Your task to perform on an android device: Open Yahoo.com Image 0: 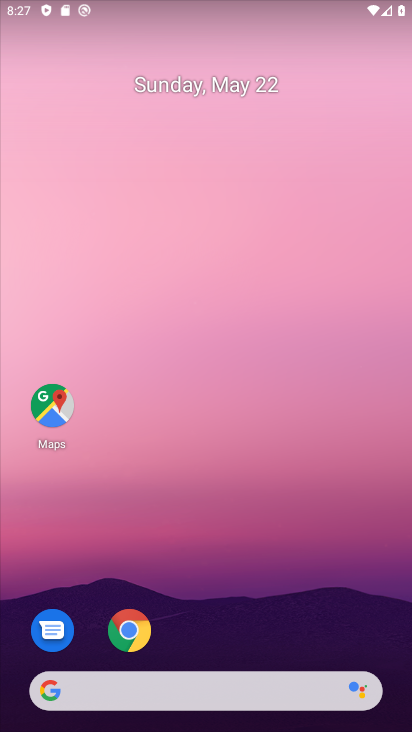
Step 0: click (198, 684)
Your task to perform on an android device: Open Yahoo.com Image 1: 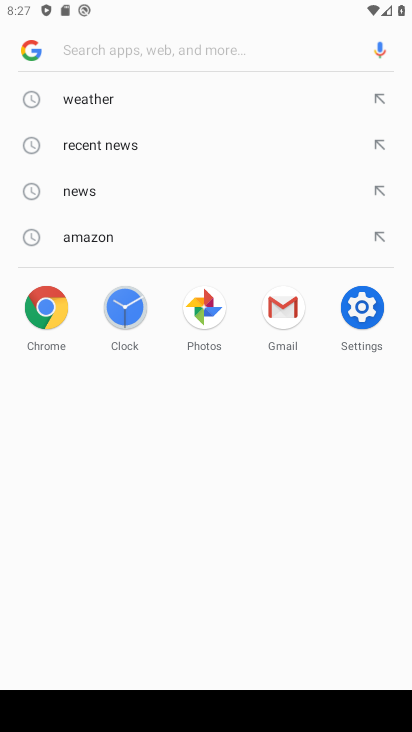
Step 1: type "yahoo.com"
Your task to perform on an android device: Open Yahoo.com Image 2: 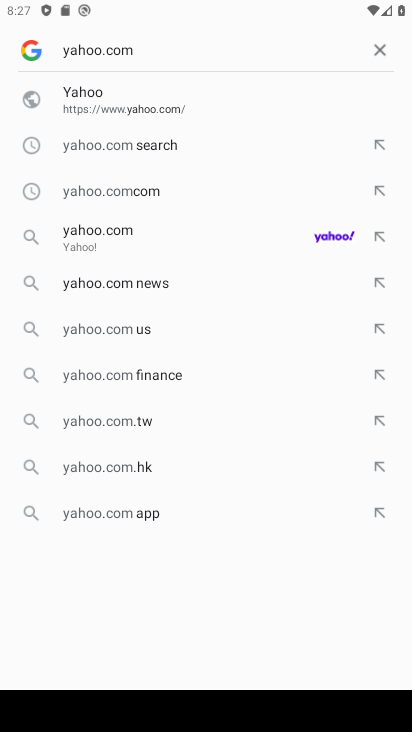
Step 2: click (155, 104)
Your task to perform on an android device: Open Yahoo.com Image 3: 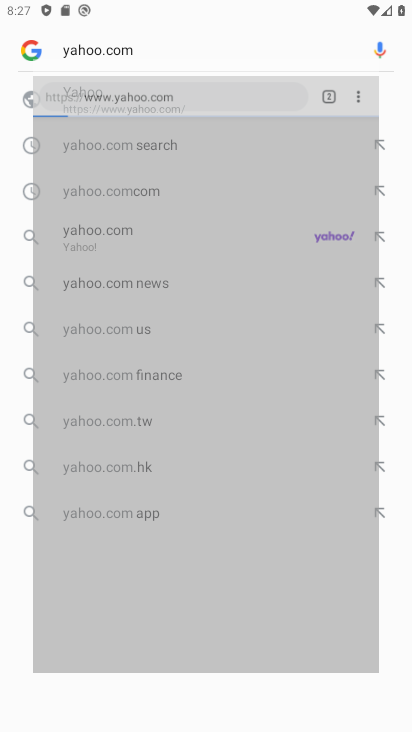
Step 3: task complete